Your task to perform on an android device: Add usb-a to usb-b to the cart on bestbuy.com Image 0: 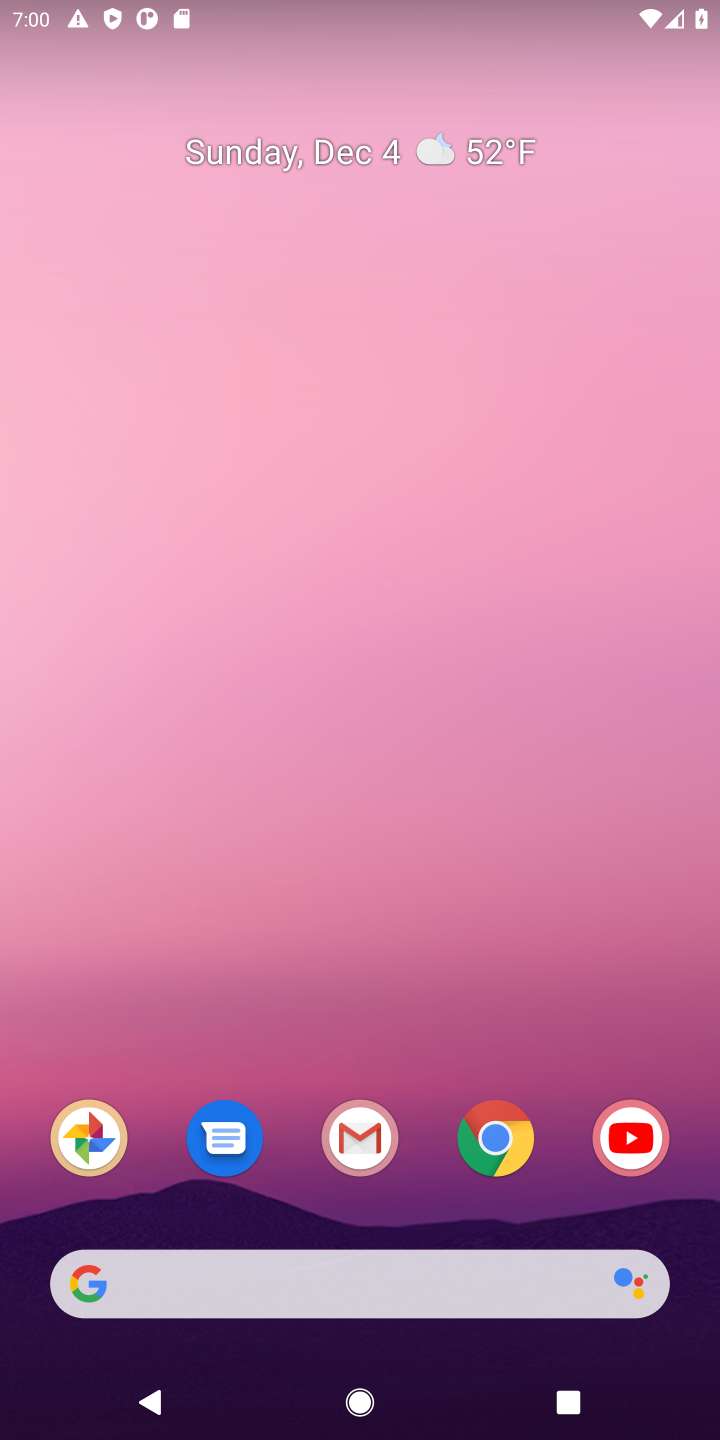
Step 0: click (487, 1128)
Your task to perform on an android device: Add usb-a to usb-b to the cart on bestbuy.com Image 1: 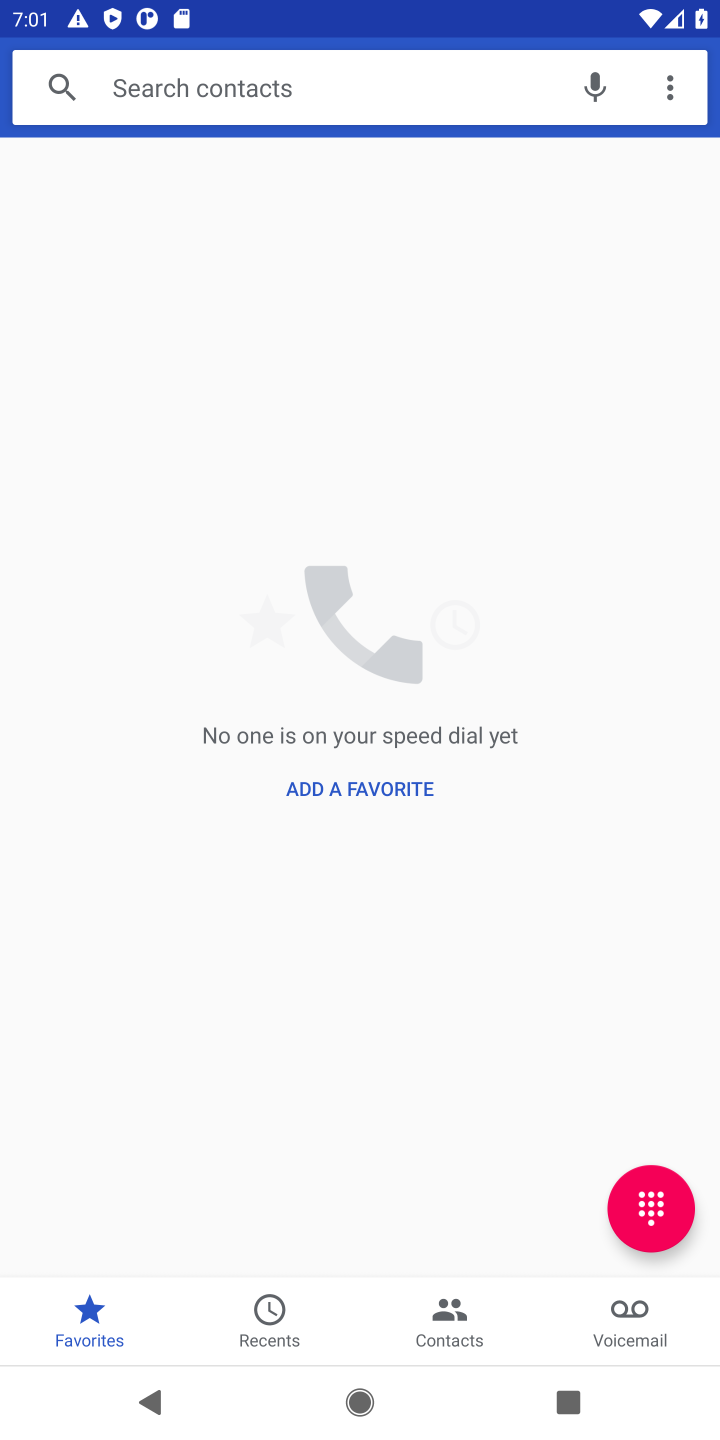
Step 1: press home button
Your task to perform on an android device: Add usb-a to usb-b to the cart on bestbuy.com Image 2: 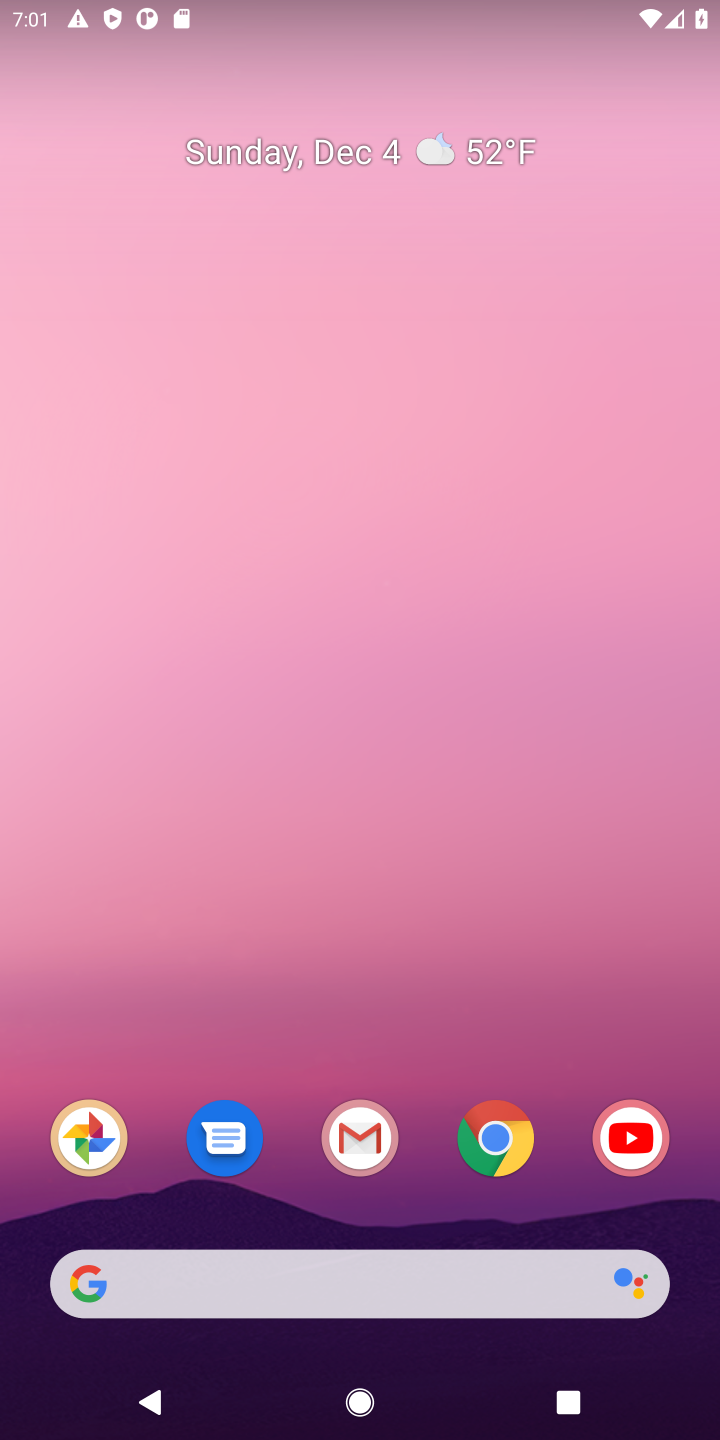
Step 2: click (492, 1112)
Your task to perform on an android device: Add usb-a to usb-b to the cart on bestbuy.com Image 3: 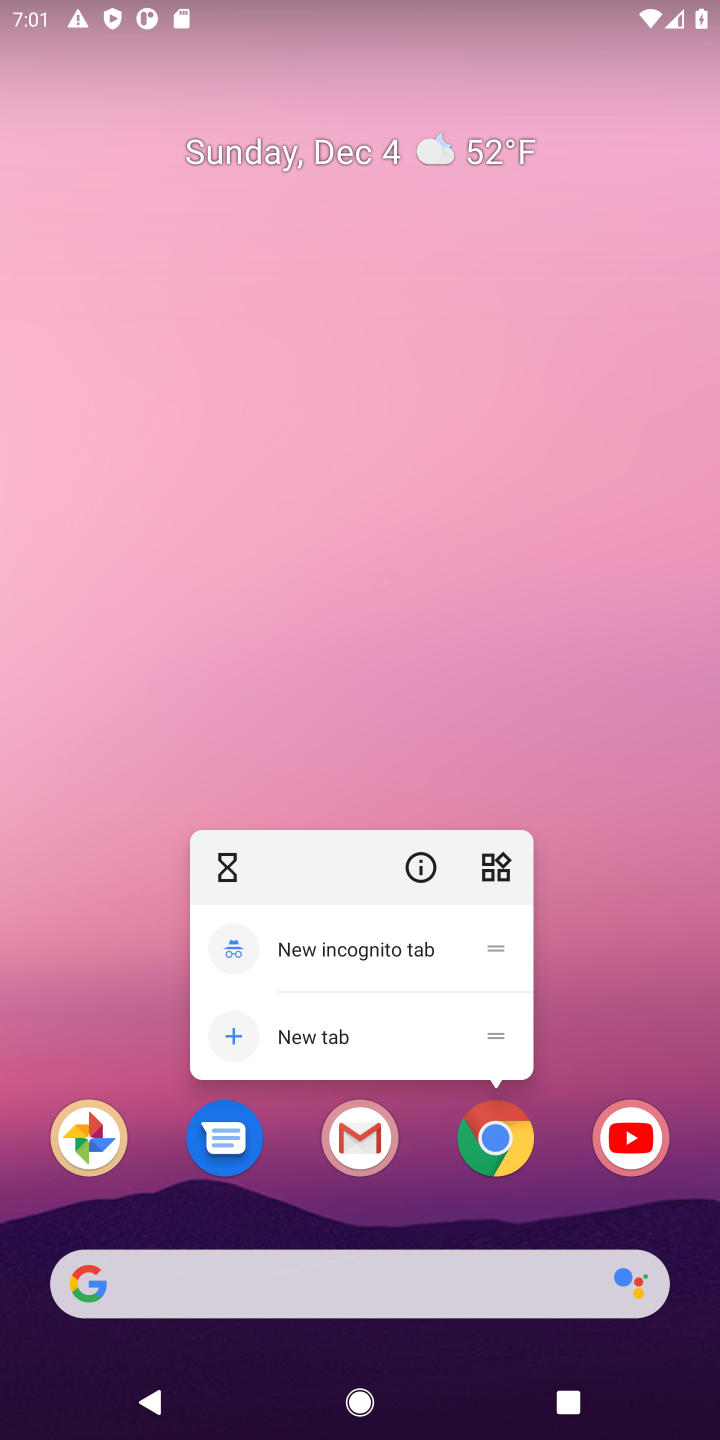
Step 3: click (492, 1112)
Your task to perform on an android device: Add usb-a to usb-b to the cart on bestbuy.com Image 4: 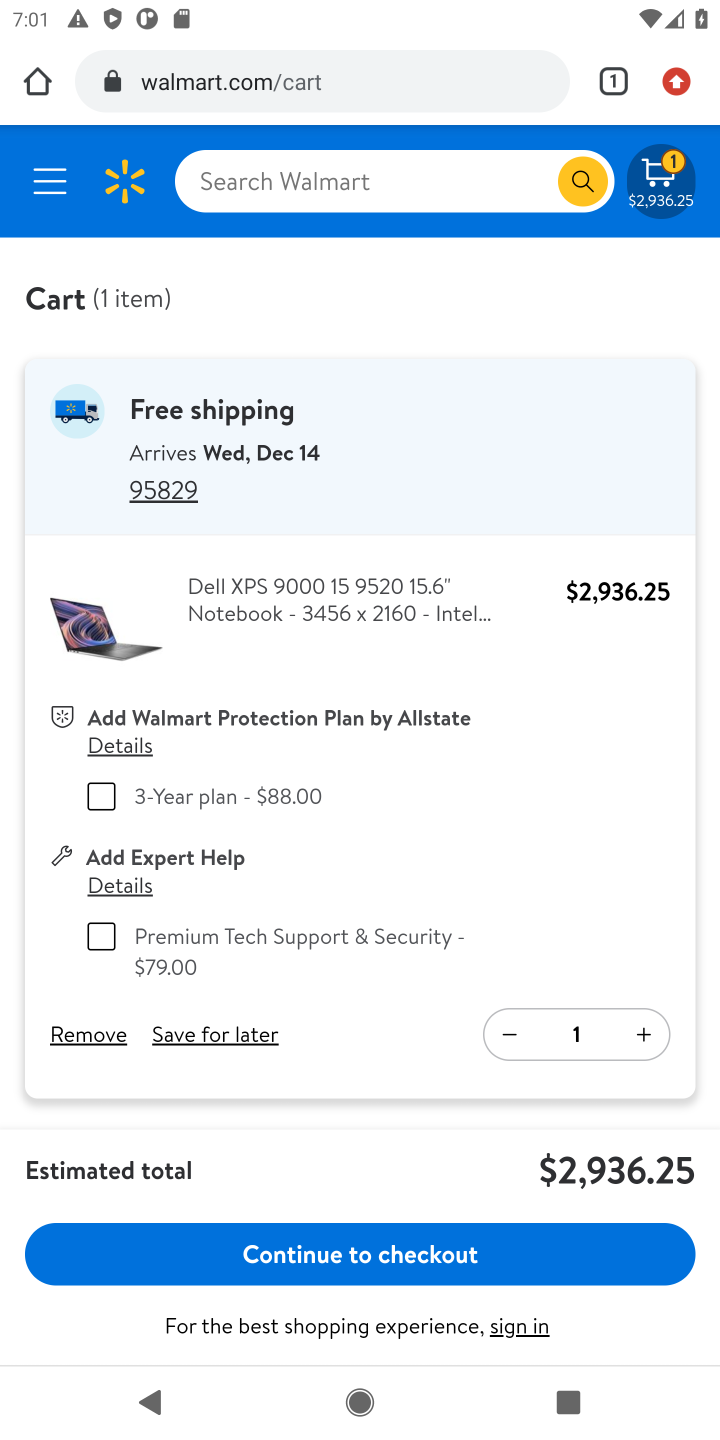
Step 4: click (441, 68)
Your task to perform on an android device: Add usb-a to usb-b to the cart on bestbuy.com Image 5: 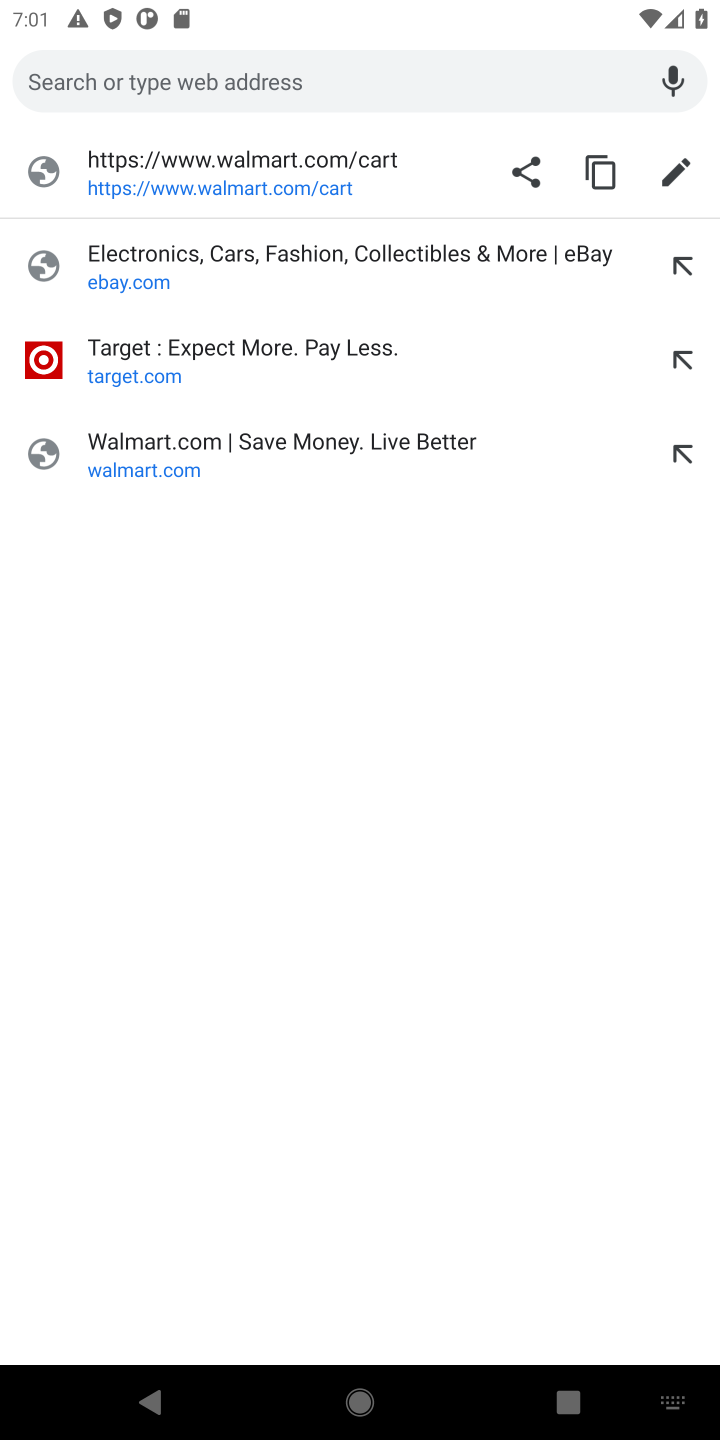
Step 5: type "bestbuy.com"
Your task to perform on an android device: Add usb-a to usb-b to the cart on bestbuy.com Image 6: 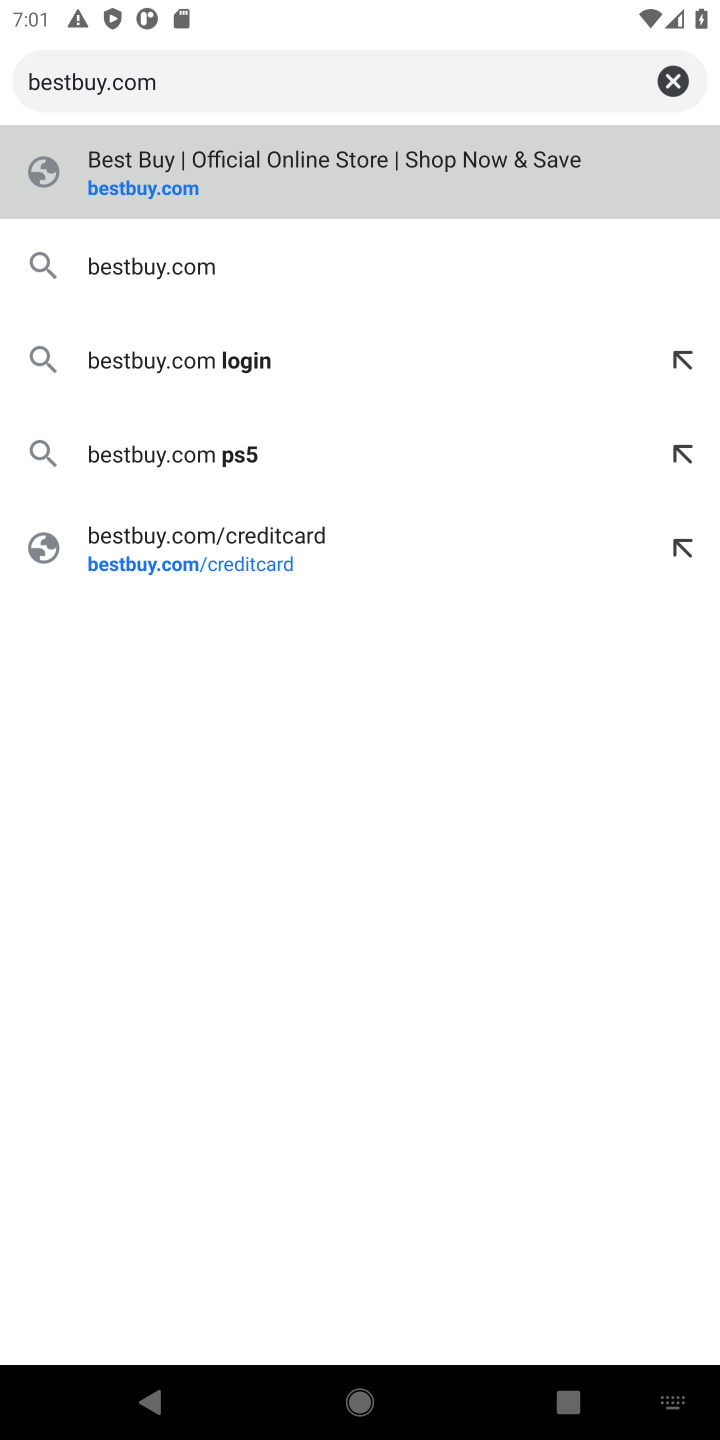
Step 6: click (181, 260)
Your task to perform on an android device: Add usb-a to usb-b to the cart on bestbuy.com Image 7: 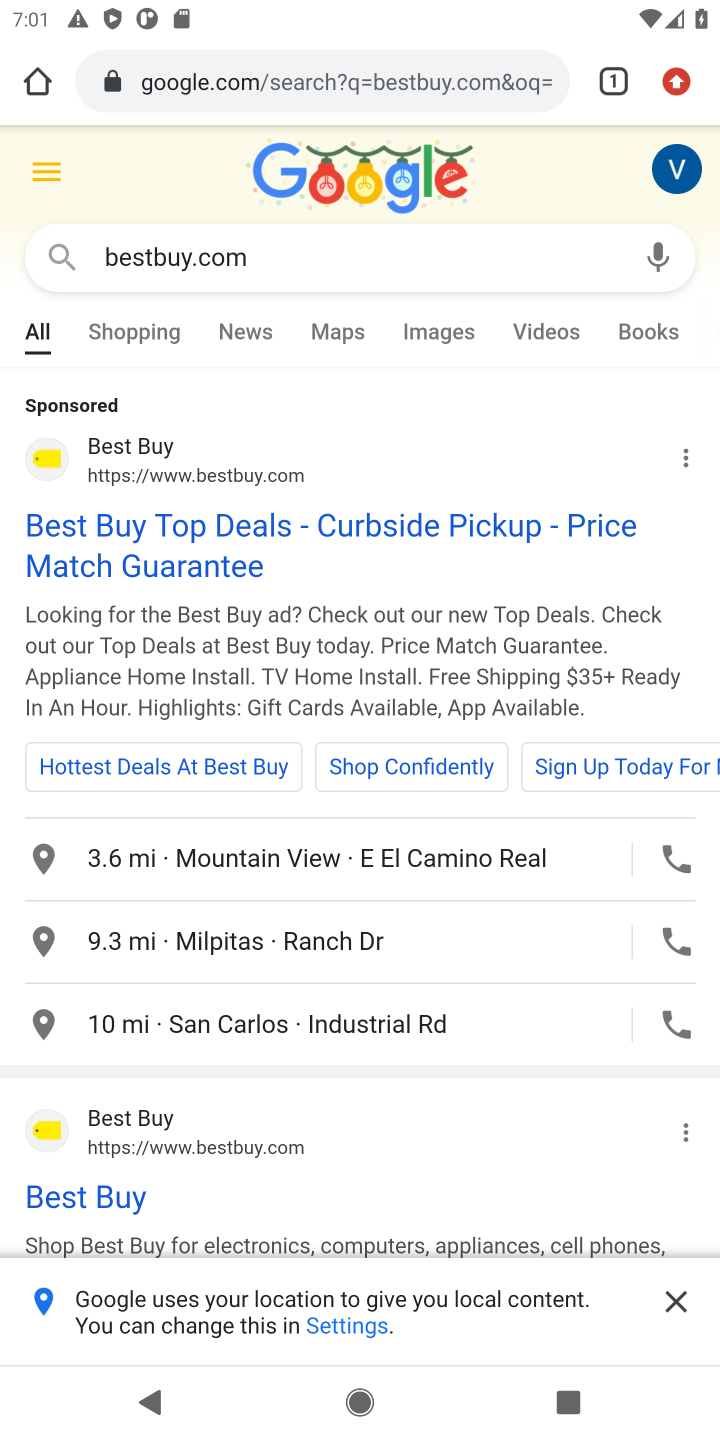
Step 7: click (254, 1132)
Your task to perform on an android device: Add usb-a to usb-b to the cart on bestbuy.com Image 8: 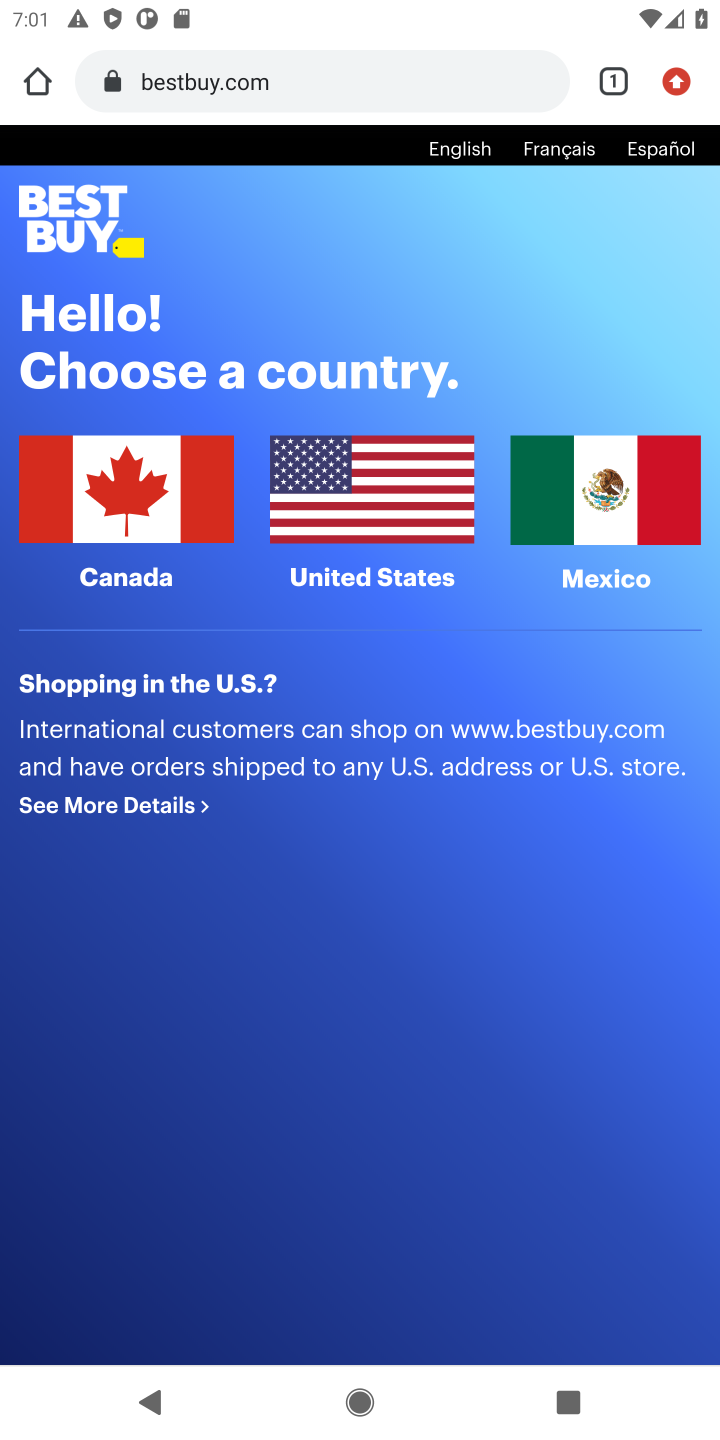
Step 8: click (381, 484)
Your task to perform on an android device: Add usb-a to usb-b to the cart on bestbuy.com Image 9: 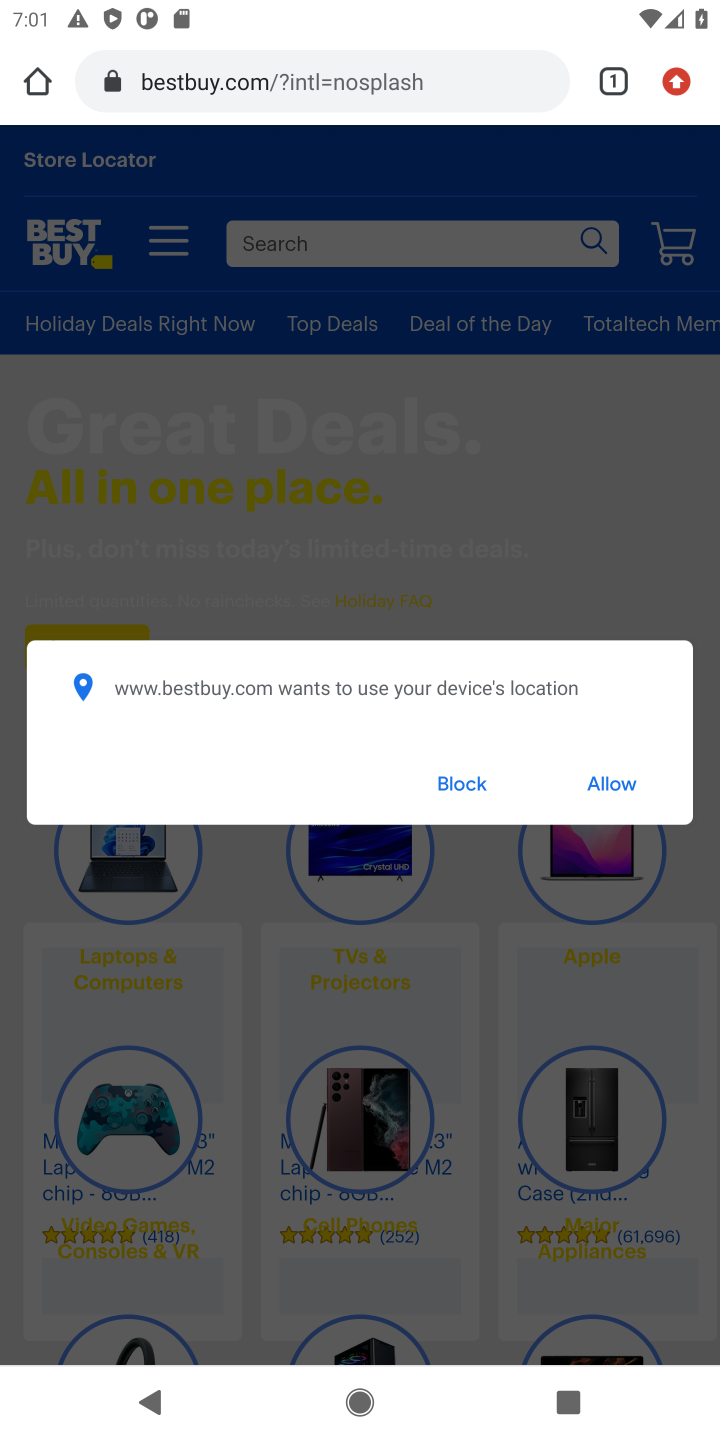
Step 9: click (484, 785)
Your task to perform on an android device: Add usb-a to usb-b to the cart on bestbuy.com Image 10: 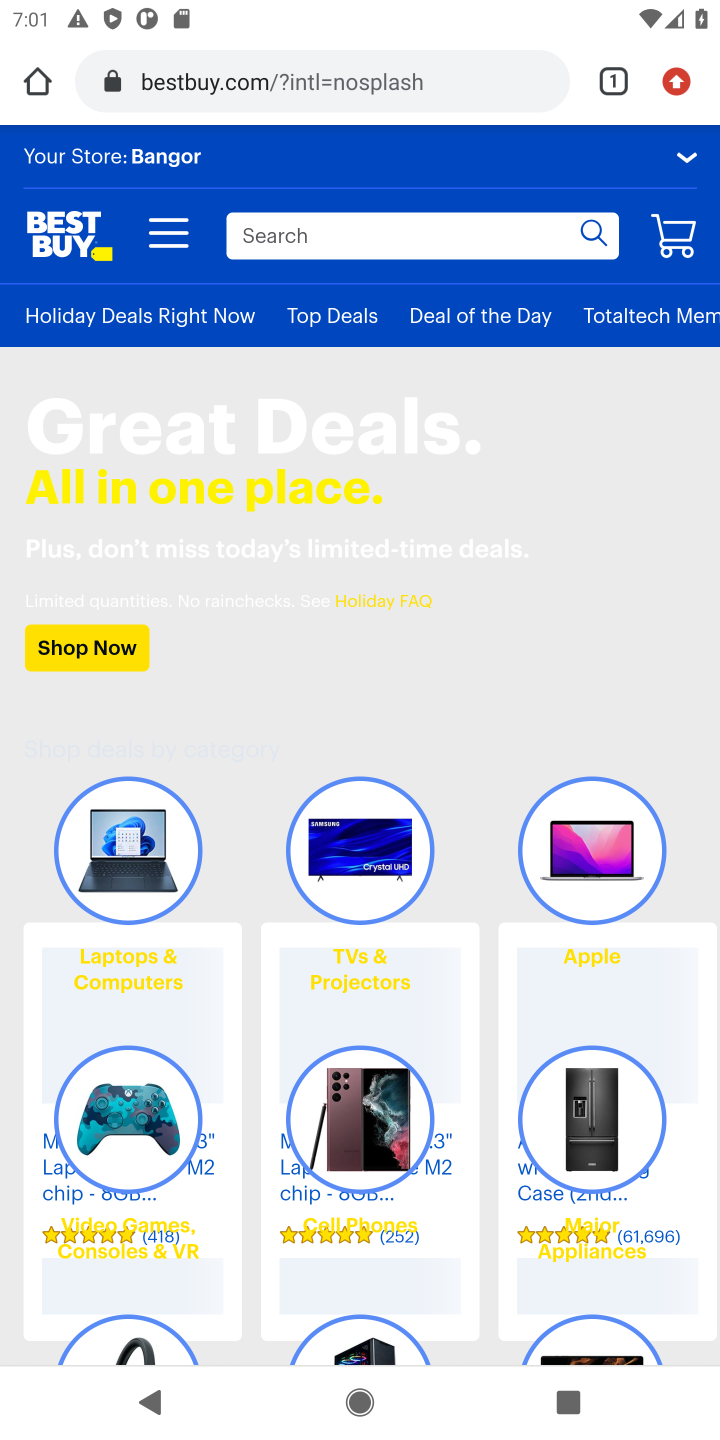
Step 10: click (474, 241)
Your task to perform on an android device: Add usb-a to usb-b to the cart on bestbuy.com Image 11: 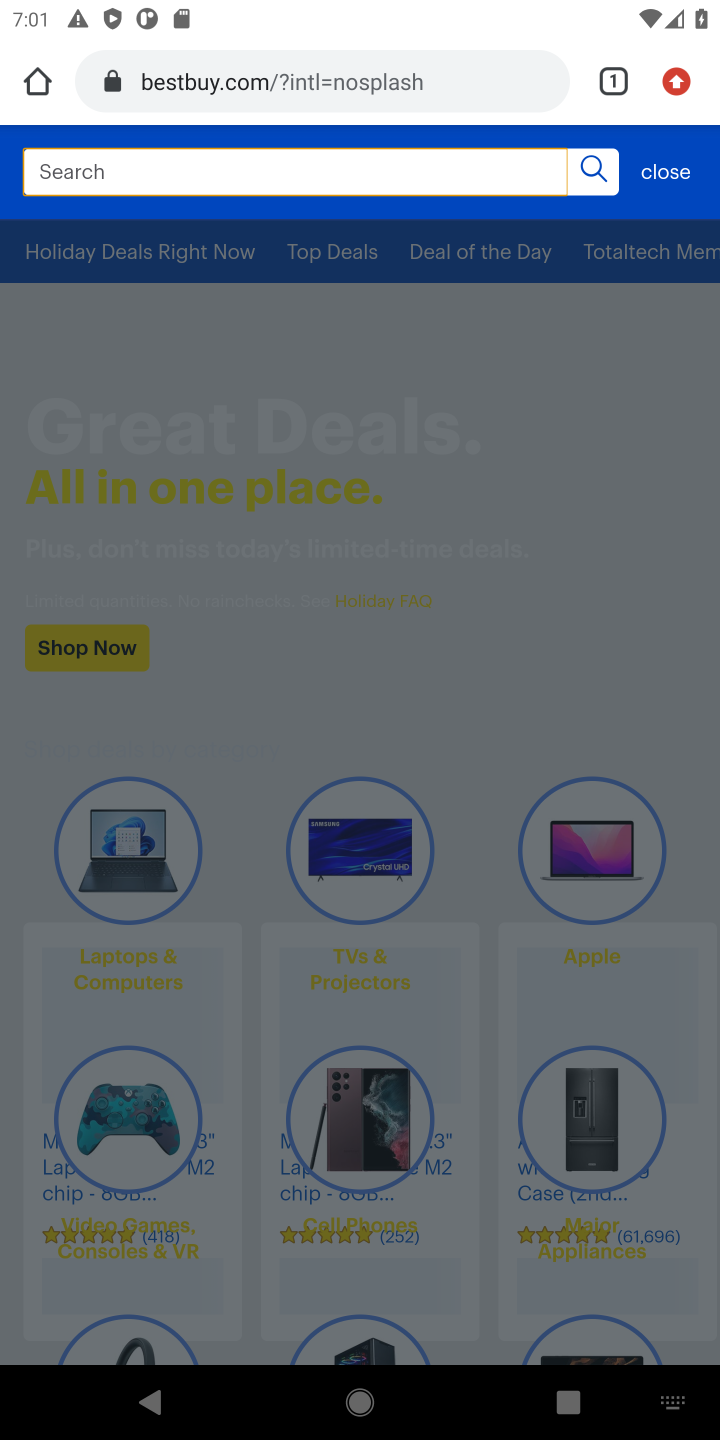
Step 11: press enter
Your task to perform on an android device: Add usb-a to usb-b to the cart on bestbuy.com Image 12: 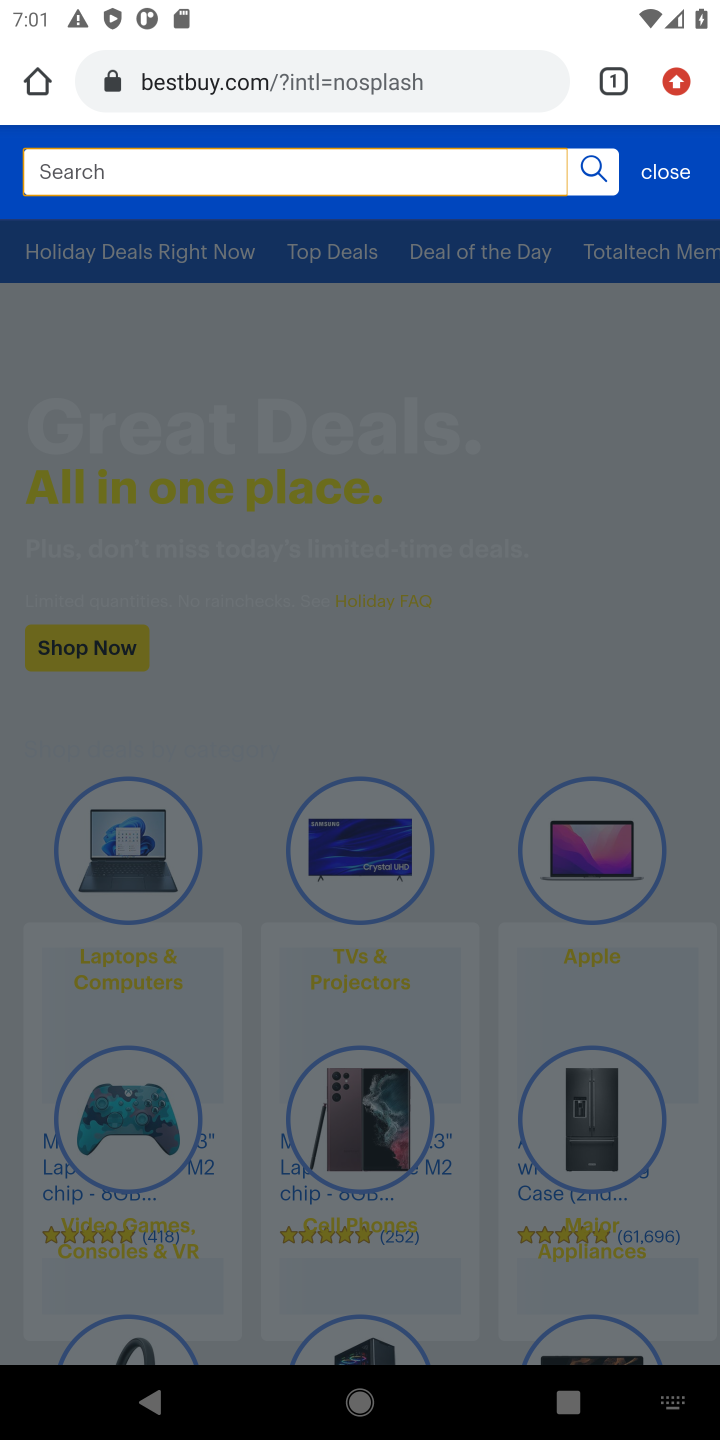
Step 12: type "usb-a to usb-b"
Your task to perform on an android device: Add usb-a to usb-b to the cart on bestbuy.com Image 13: 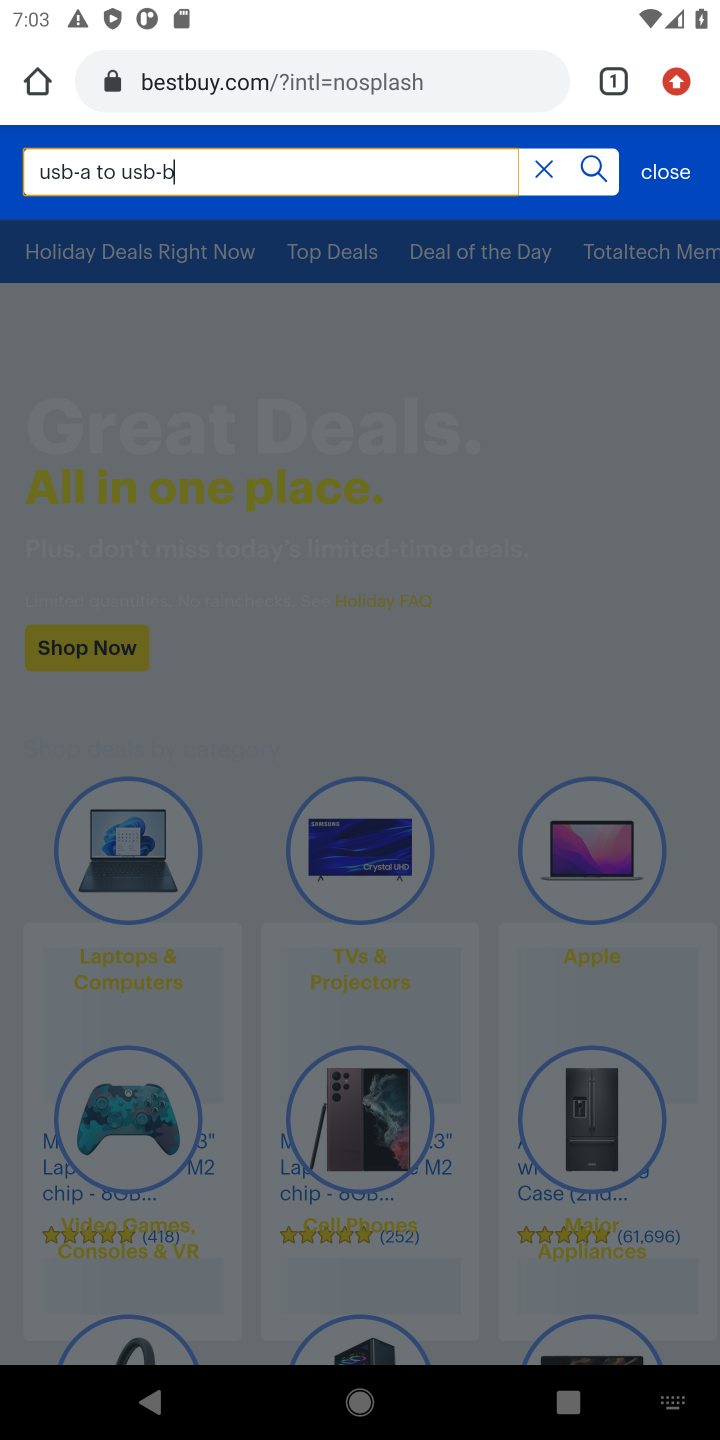
Step 13: press enter
Your task to perform on an android device: Add usb-a to usb-b to the cart on bestbuy.com Image 14: 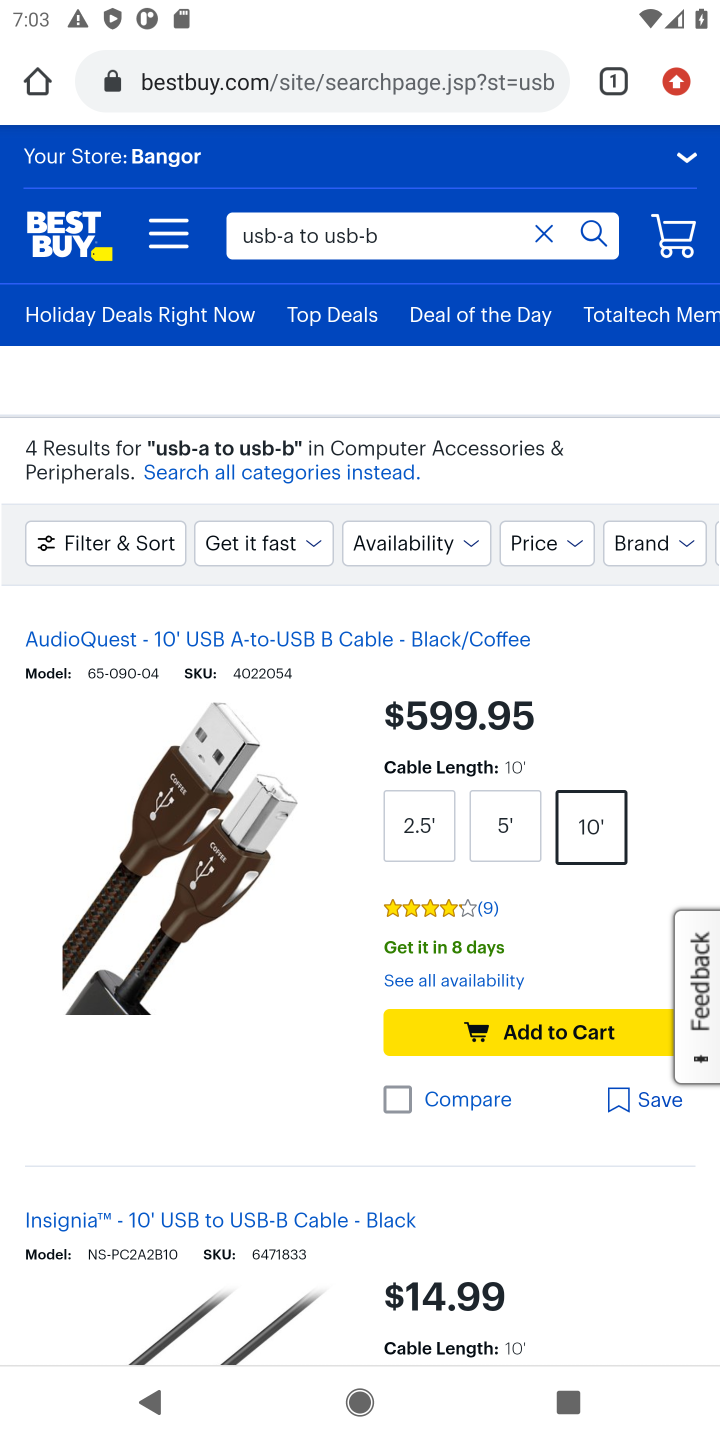
Step 14: click (233, 872)
Your task to perform on an android device: Add usb-a to usb-b to the cart on bestbuy.com Image 15: 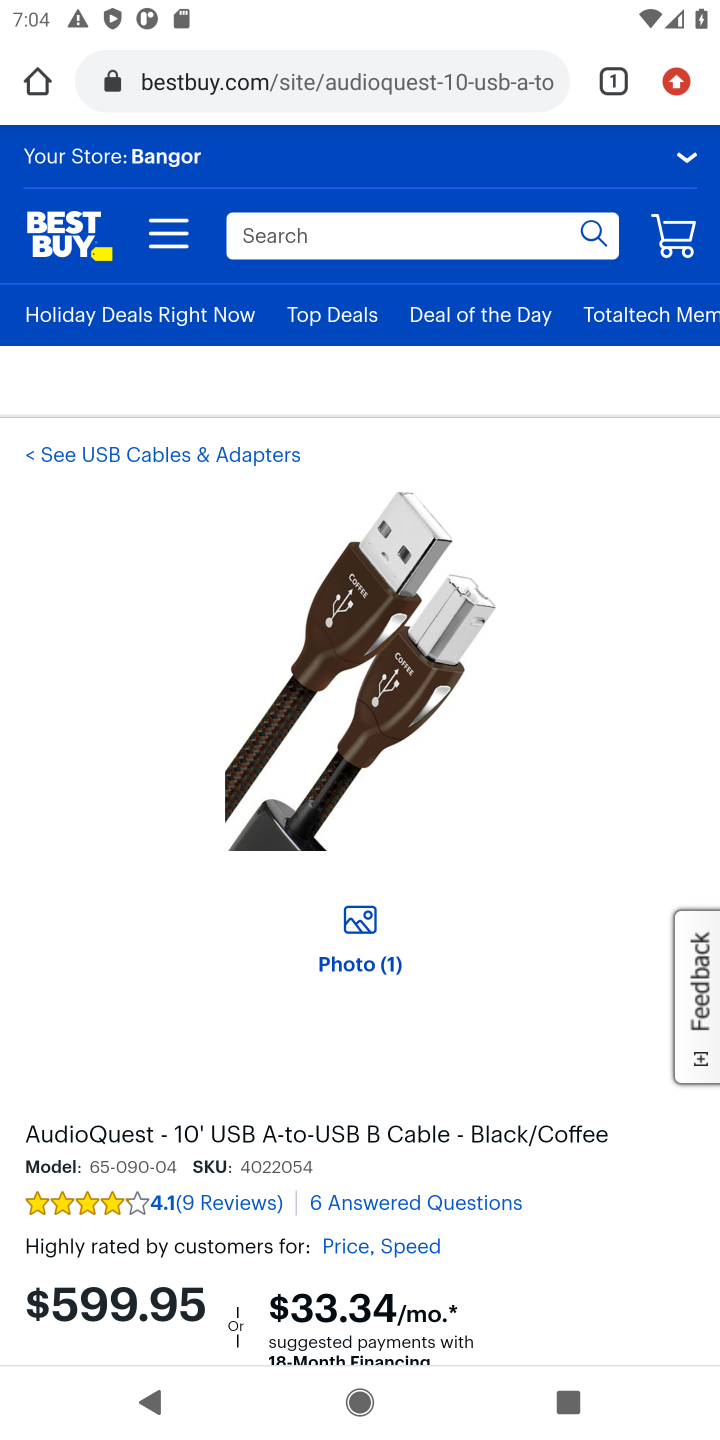
Step 15: drag from (469, 986) to (473, 561)
Your task to perform on an android device: Add usb-a to usb-b to the cart on bestbuy.com Image 16: 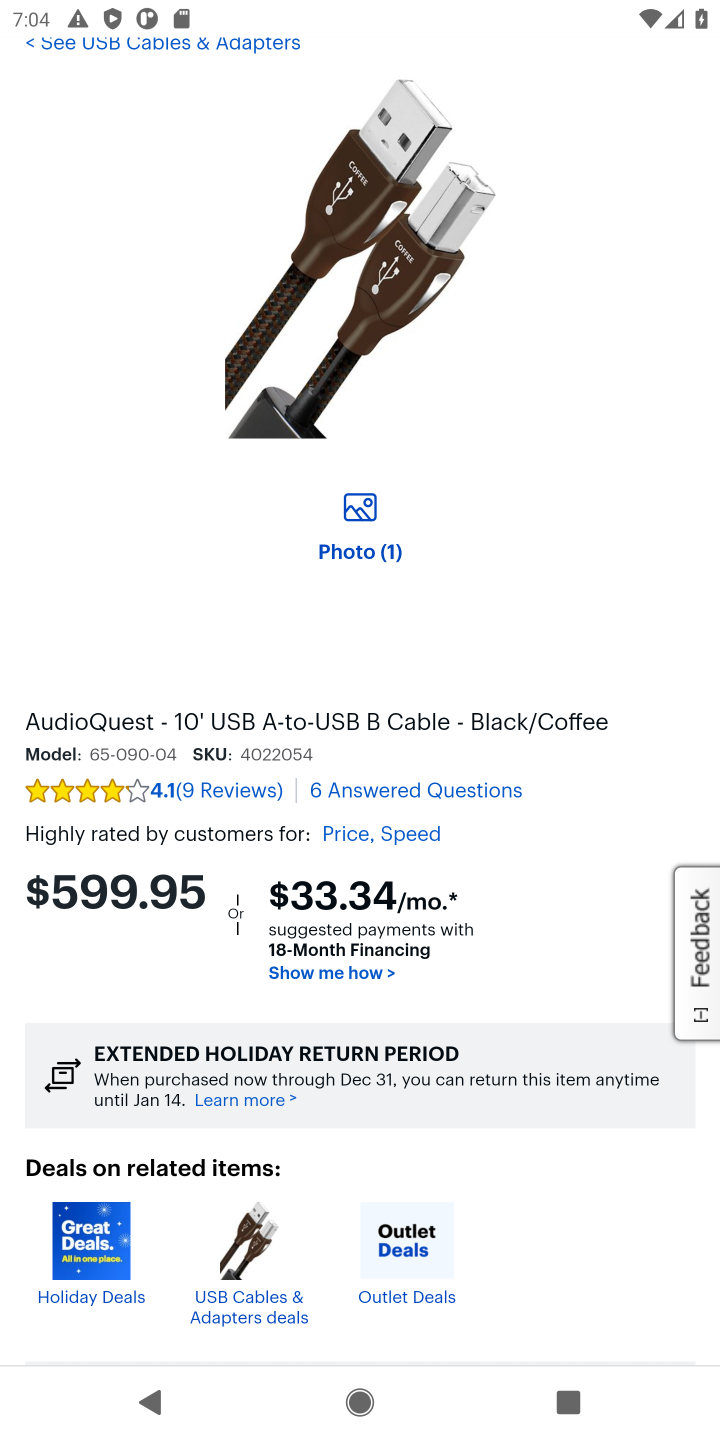
Step 16: drag from (641, 1095) to (647, 68)
Your task to perform on an android device: Add usb-a to usb-b to the cart on bestbuy.com Image 17: 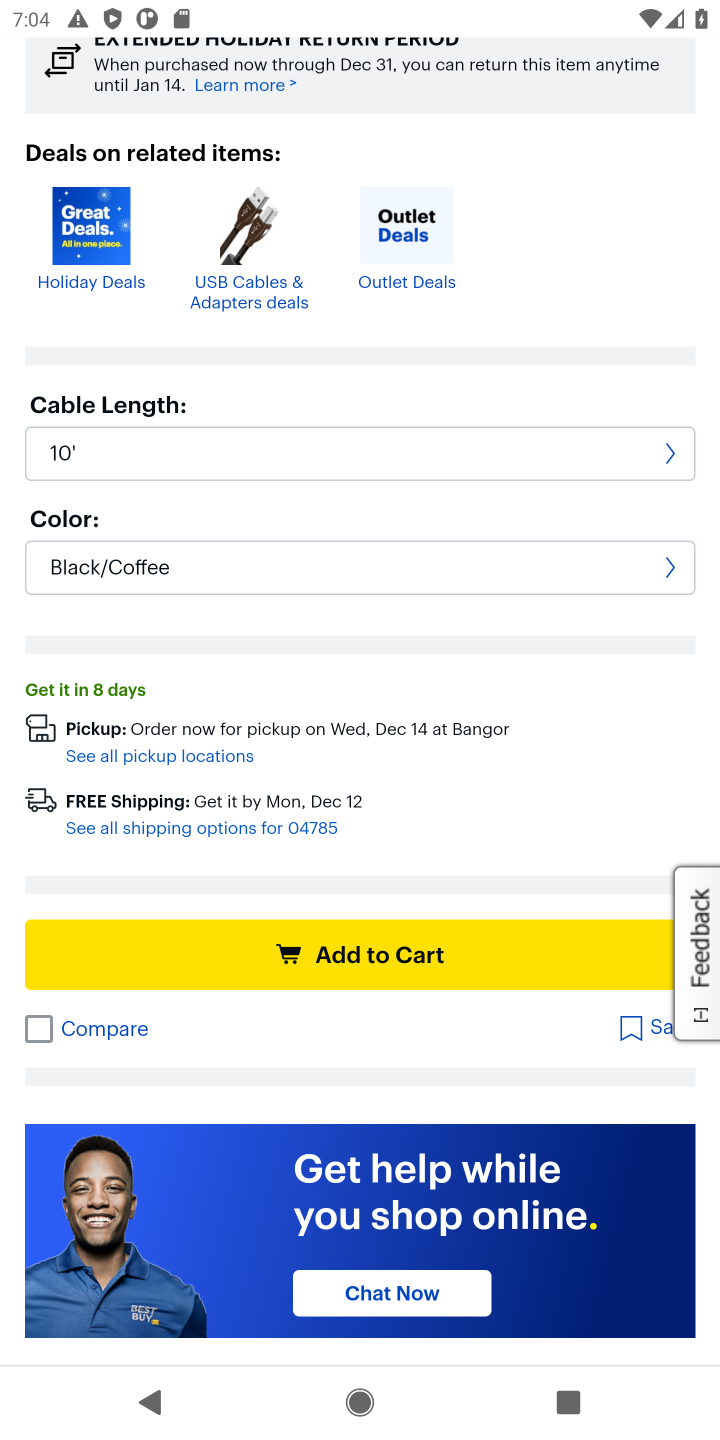
Step 17: click (436, 954)
Your task to perform on an android device: Add usb-a to usb-b to the cart on bestbuy.com Image 18: 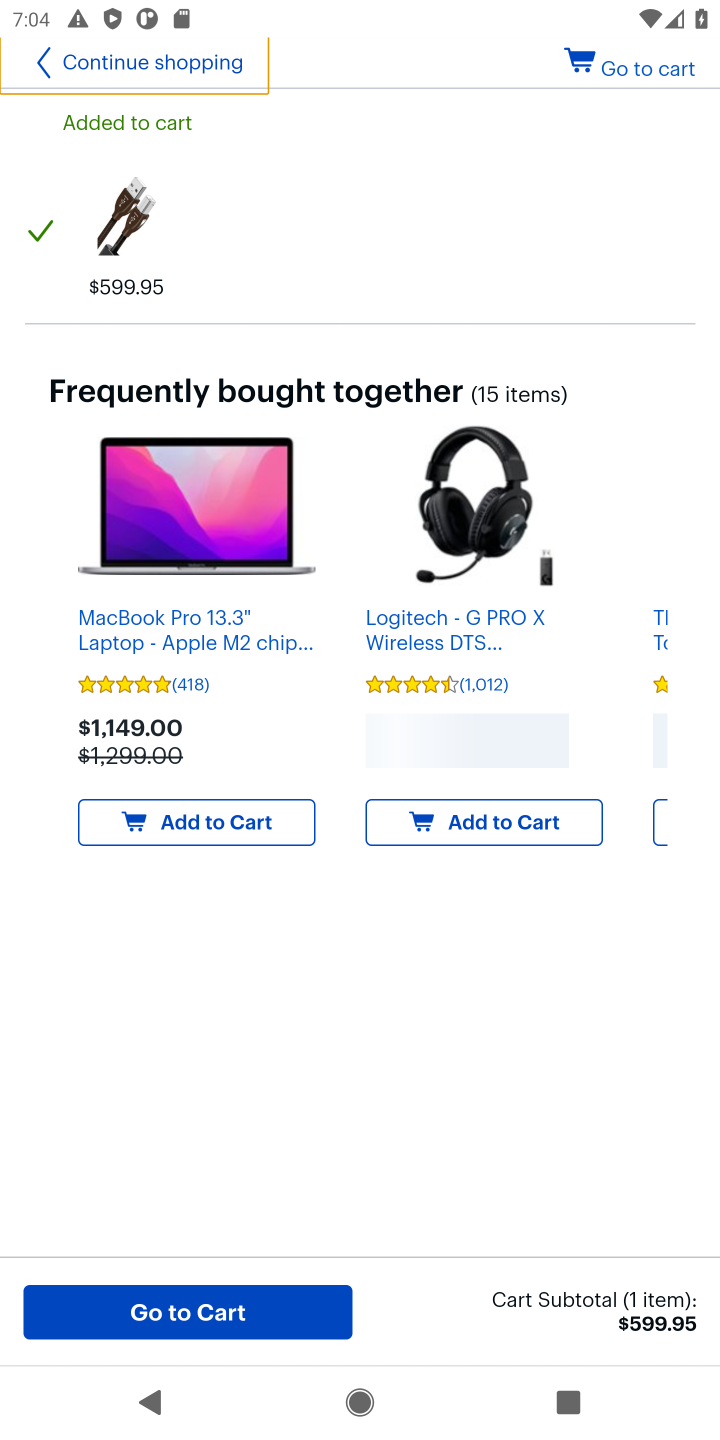
Step 18: click (219, 1298)
Your task to perform on an android device: Add usb-a to usb-b to the cart on bestbuy.com Image 19: 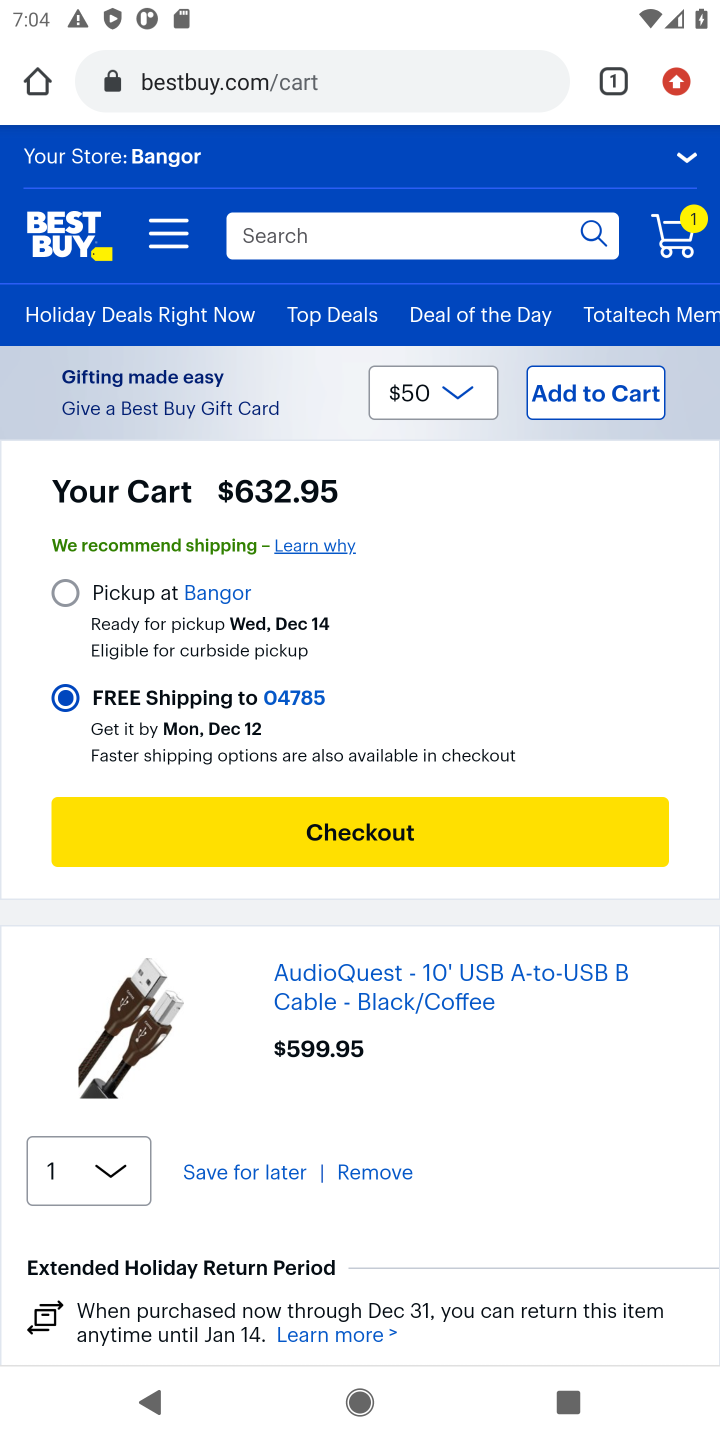
Step 19: task complete